Your task to perform on an android device: turn off location Image 0: 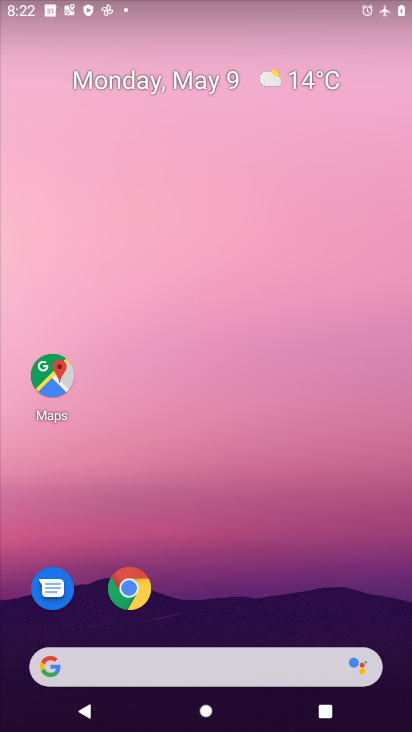
Step 0: drag from (328, 642) to (162, 75)
Your task to perform on an android device: turn off location Image 1: 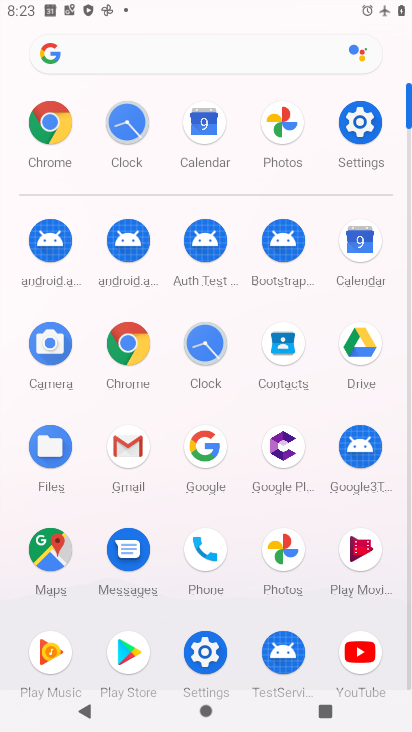
Step 1: click (356, 111)
Your task to perform on an android device: turn off location Image 2: 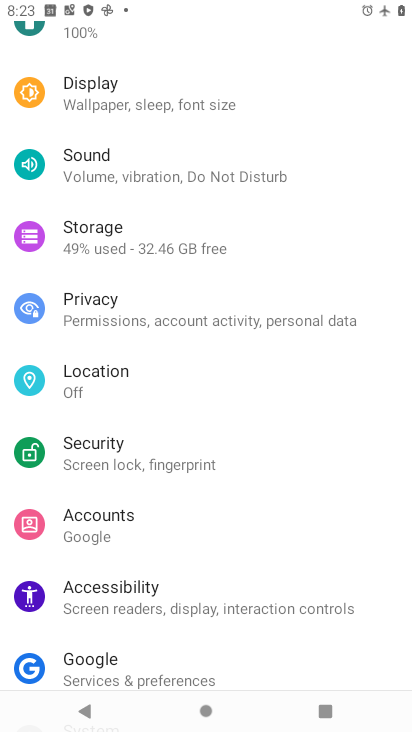
Step 2: click (76, 404)
Your task to perform on an android device: turn off location Image 3: 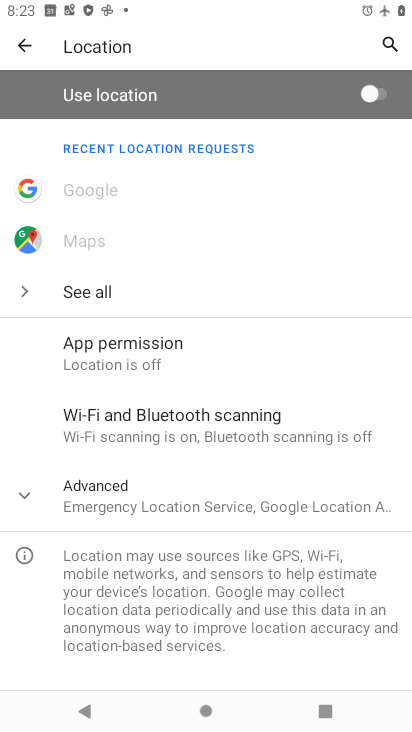
Step 3: task complete